Your task to perform on an android device: see tabs open on other devices in the chrome app Image 0: 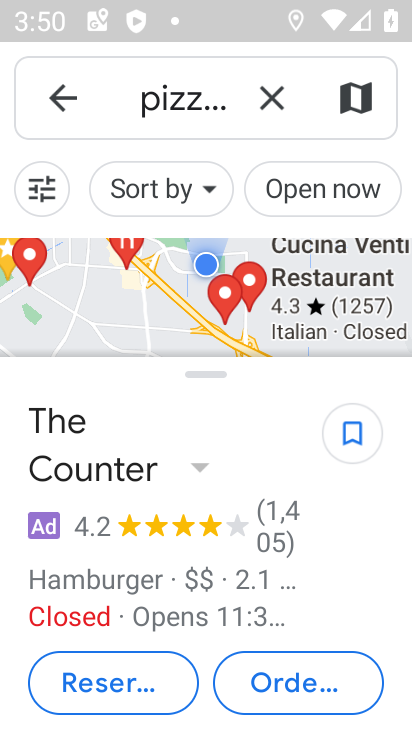
Step 0: press home button
Your task to perform on an android device: see tabs open on other devices in the chrome app Image 1: 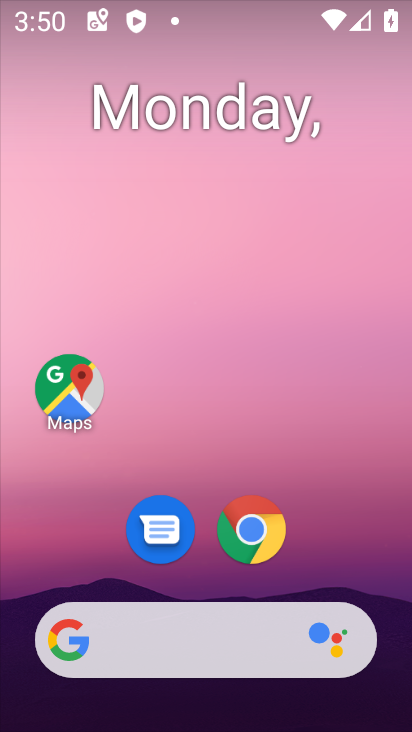
Step 1: drag from (202, 539) to (273, 0)
Your task to perform on an android device: see tabs open on other devices in the chrome app Image 2: 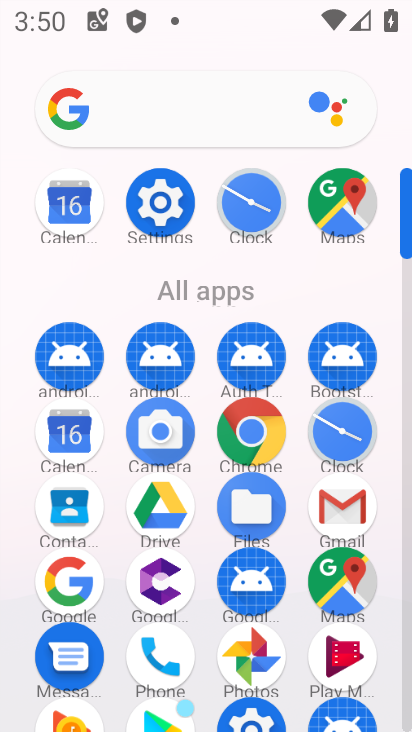
Step 2: click (239, 433)
Your task to perform on an android device: see tabs open on other devices in the chrome app Image 3: 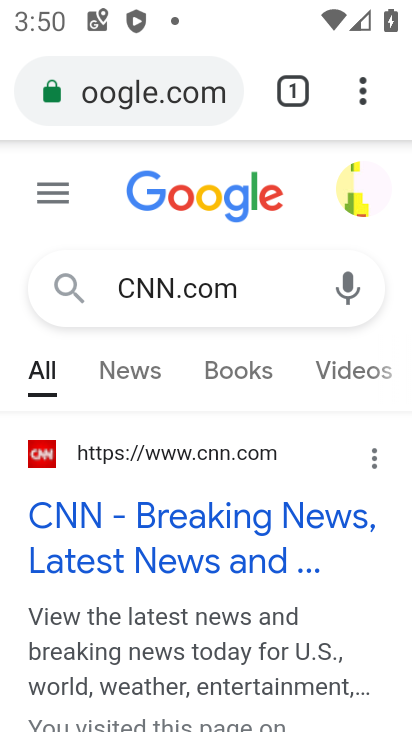
Step 3: click (367, 98)
Your task to perform on an android device: see tabs open on other devices in the chrome app Image 4: 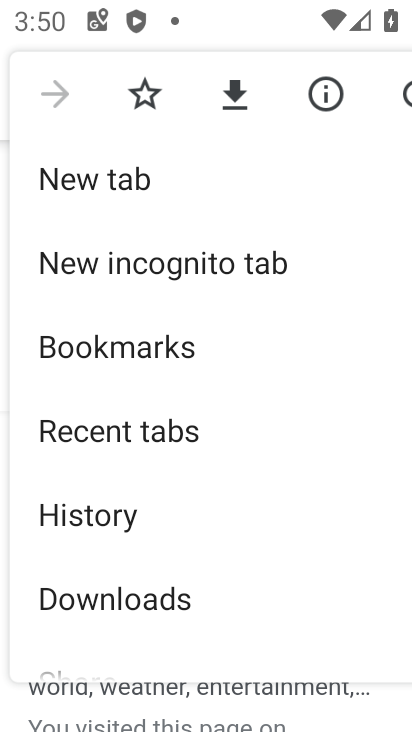
Step 4: click (156, 441)
Your task to perform on an android device: see tabs open on other devices in the chrome app Image 5: 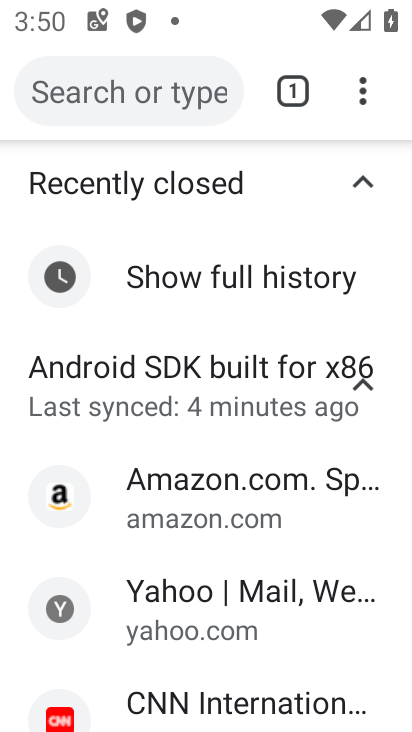
Step 5: task complete